Your task to perform on an android device: change timer sound Image 0: 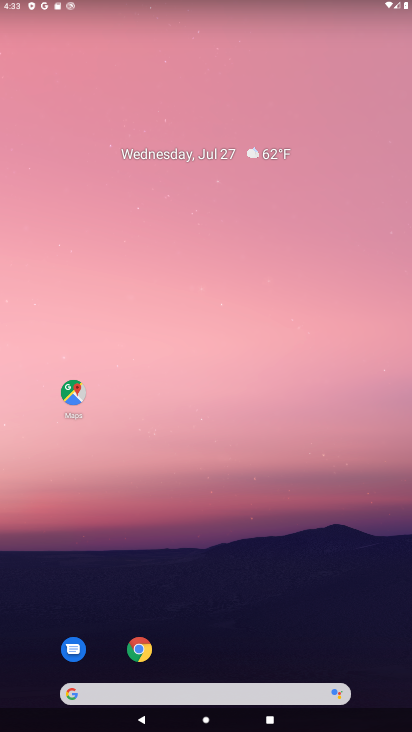
Step 0: drag from (219, 459) to (199, 96)
Your task to perform on an android device: change timer sound Image 1: 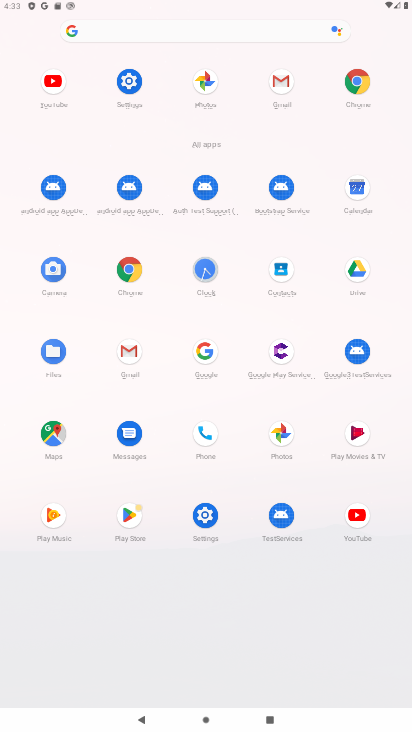
Step 1: click (197, 273)
Your task to perform on an android device: change timer sound Image 2: 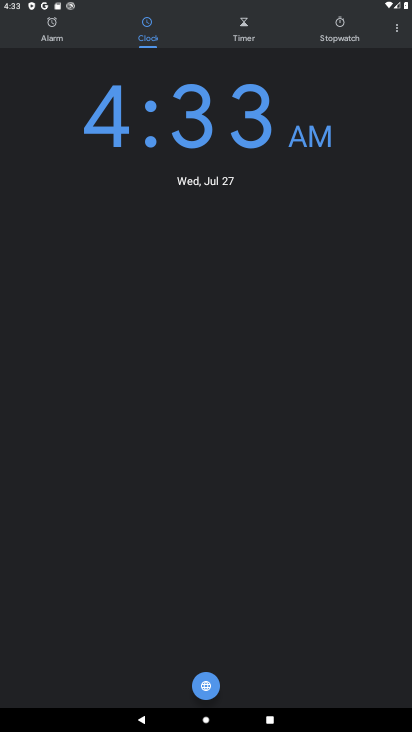
Step 2: task complete